Your task to perform on an android device: Do I have any events today? Image 0: 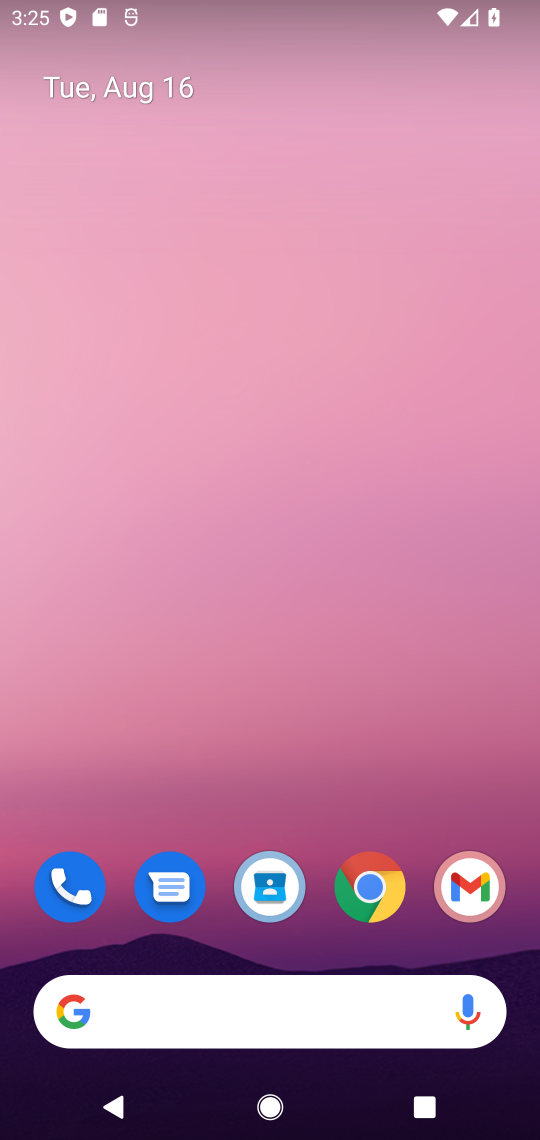
Step 0: drag from (350, 48) to (440, 886)
Your task to perform on an android device: Do I have any events today? Image 1: 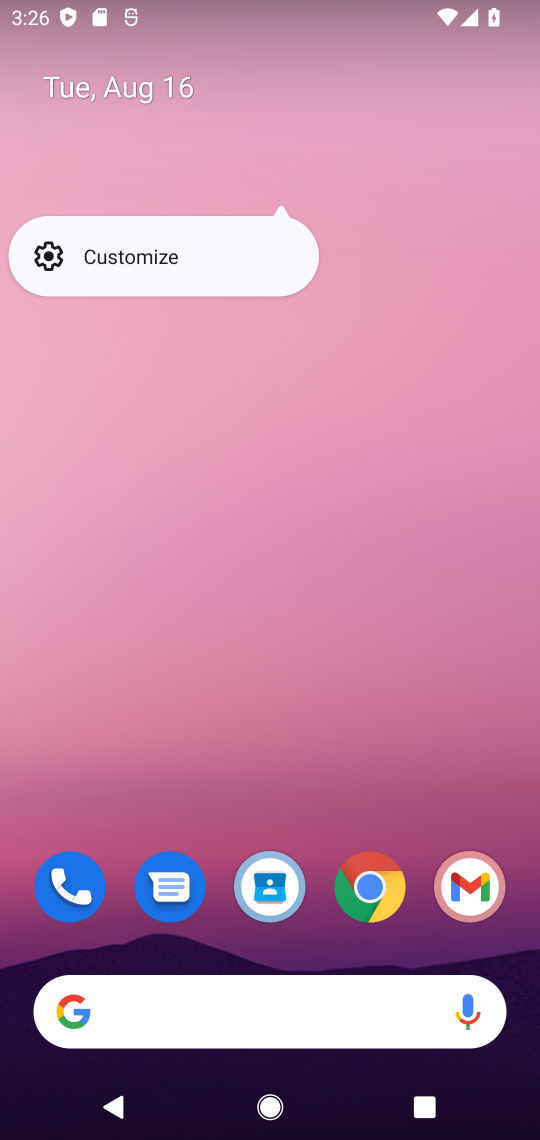
Step 1: click (52, 75)
Your task to perform on an android device: Do I have any events today? Image 2: 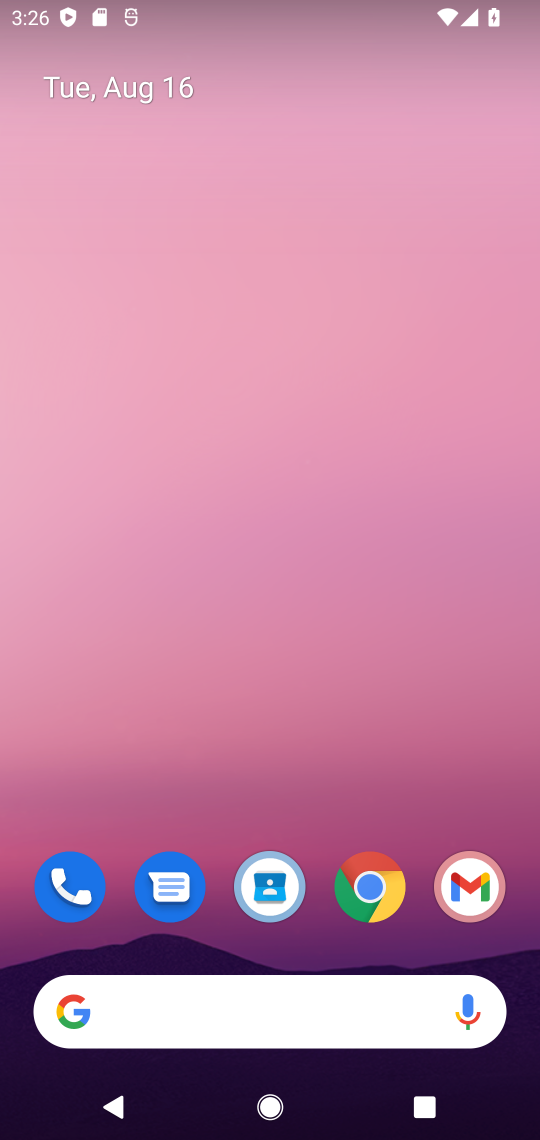
Step 2: click (59, 83)
Your task to perform on an android device: Do I have any events today? Image 3: 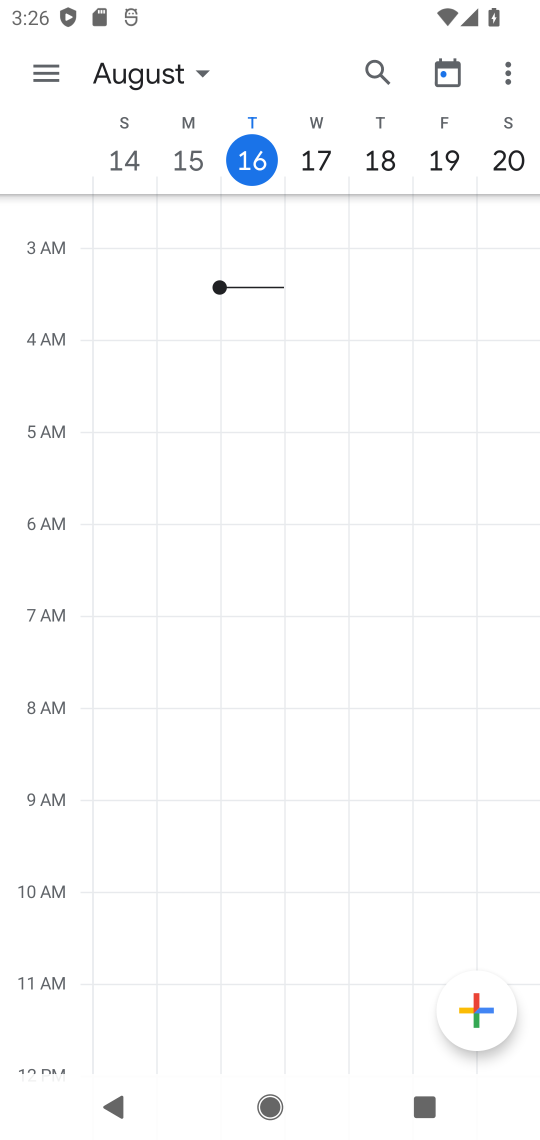
Step 3: click (257, 160)
Your task to perform on an android device: Do I have any events today? Image 4: 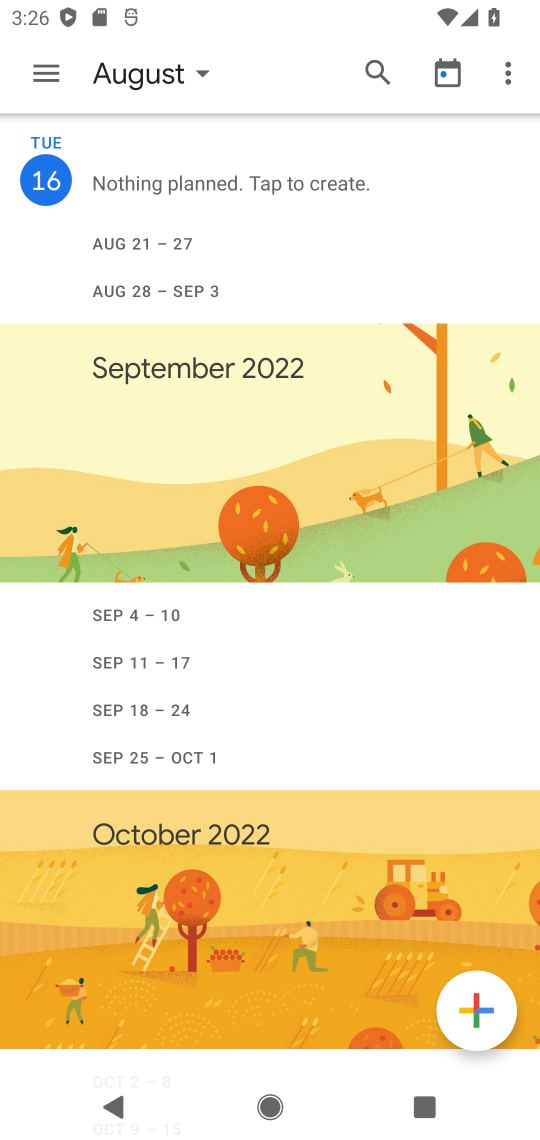
Step 4: task complete